Your task to perform on an android device: open device folders in google photos Image 0: 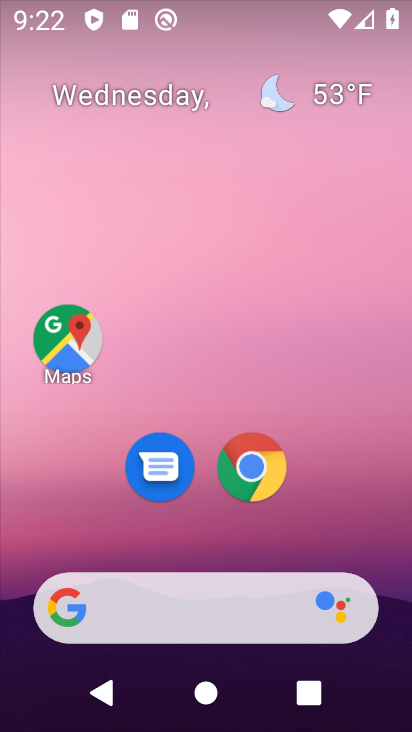
Step 0: press home button
Your task to perform on an android device: open device folders in google photos Image 1: 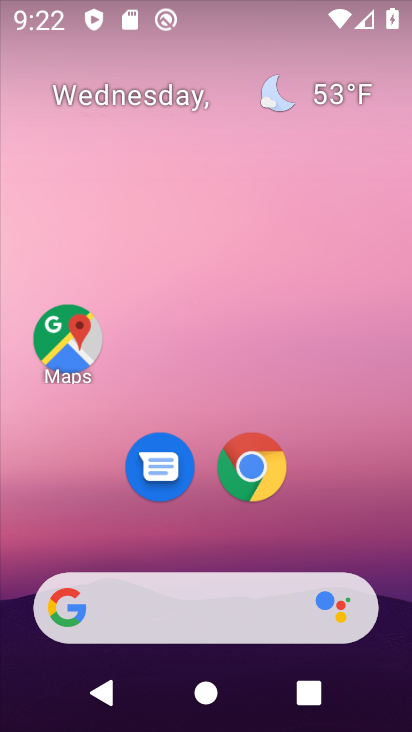
Step 1: drag from (337, 535) to (325, 0)
Your task to perform on an android device: open device folders in google photos Image 2: 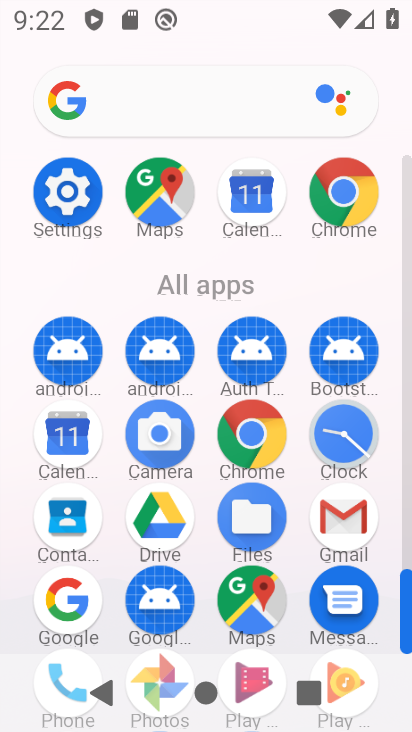
Step 2: drag from (400, 618) to (400, 703)
Your task to perform on an android device: open device folders in google photos Image 3: 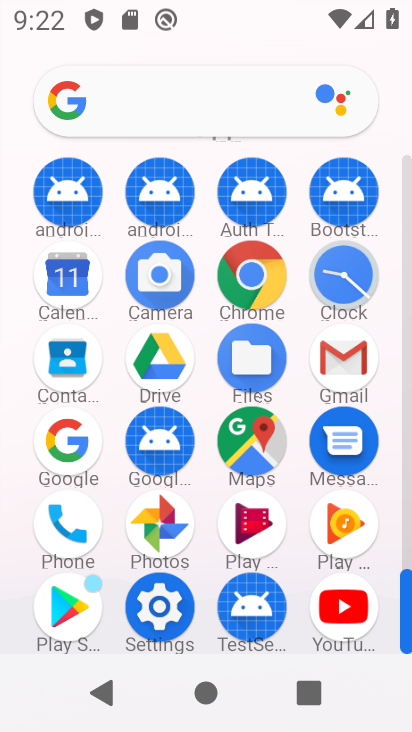
Step 3: click (156, 518)
Your task to perform on an android device: open device folders in google photos Image 4: 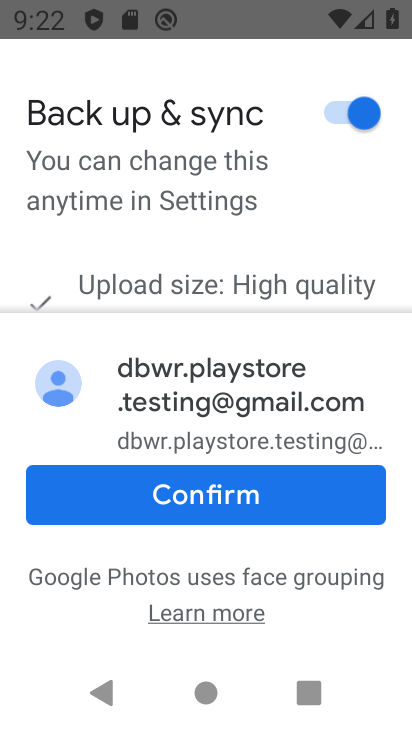
Step 4: click (227, 512)
Your task to perform on an android device: open device folders in google photos Image 5: 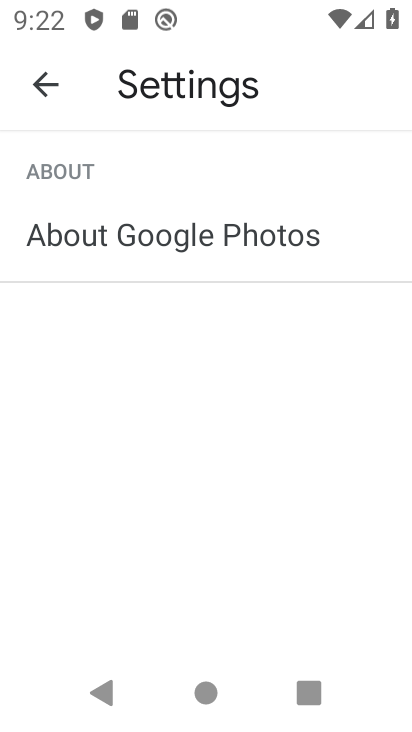
Step 5: click (32, 79)
Your task to perform on an android device: open device folders in google photos Image 6: 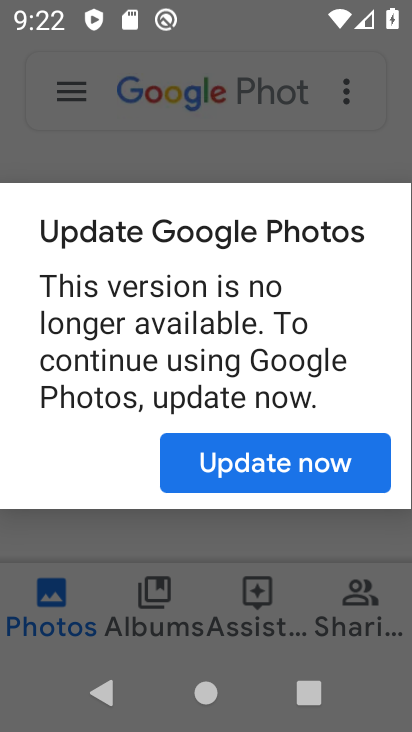
Step 6: click (327, 428)
Your task to perform on an android device: open device folders in google photos Image 7: 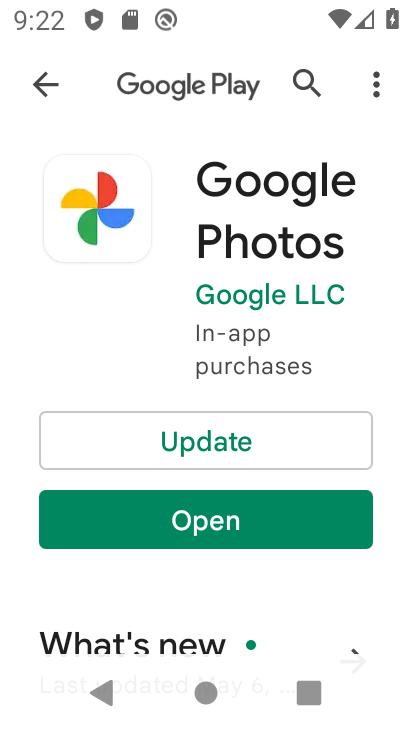
Step 7: click (196, 443)
Your task to perform on an android device: open device folders in google photos Image 8: 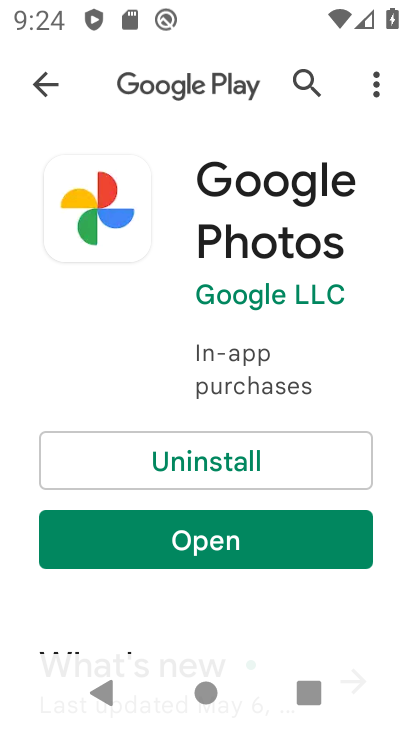
Step 8: click (149, 531)
Your task to perform on an android device: open device folders in google photos Image 9: 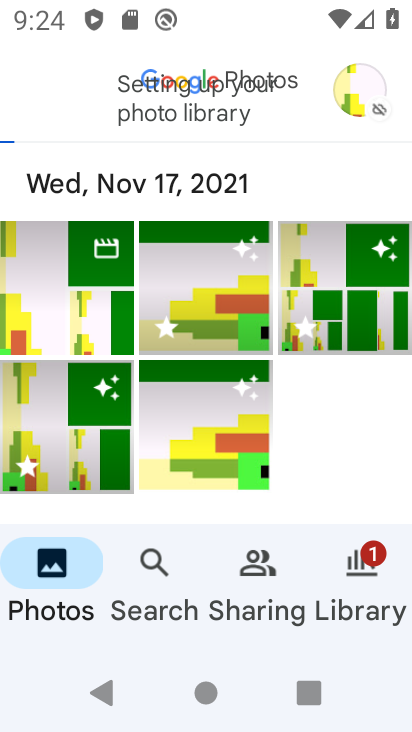
Step 9: click (352, 569)
Your task to perform on an android device: open device folders in google photos Image 10: 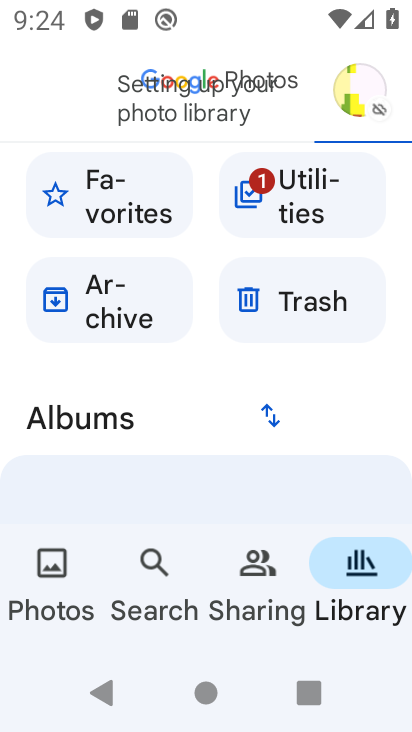
Step 10: task complete